Your task to perform on an android device: turn pop-ups on in chrome Image 0: 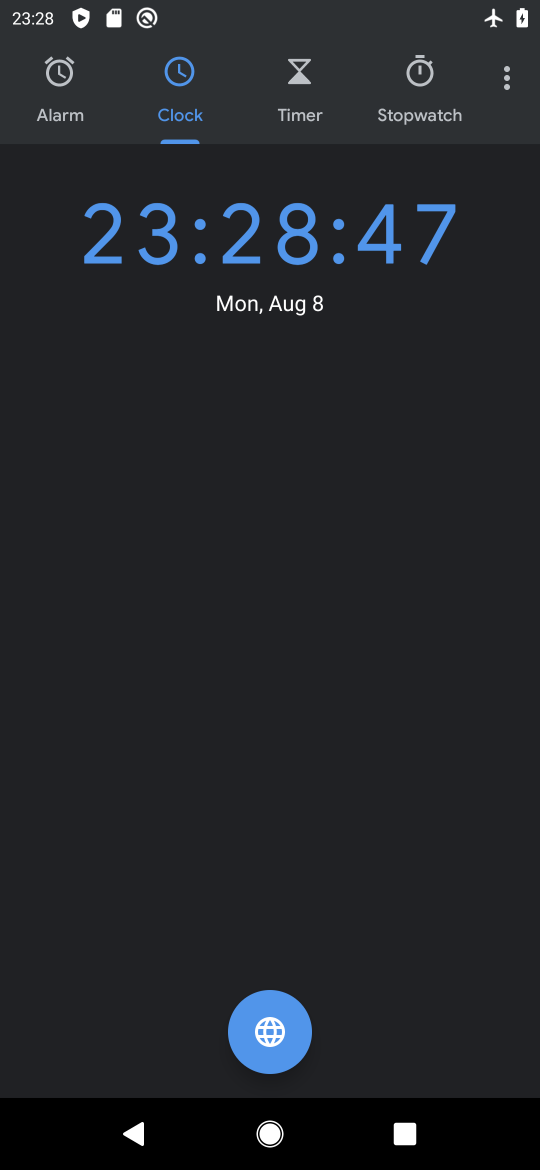
Step 0: press home button
Your task to perform on an android device: turn pop-ups on in chrome Image 1: 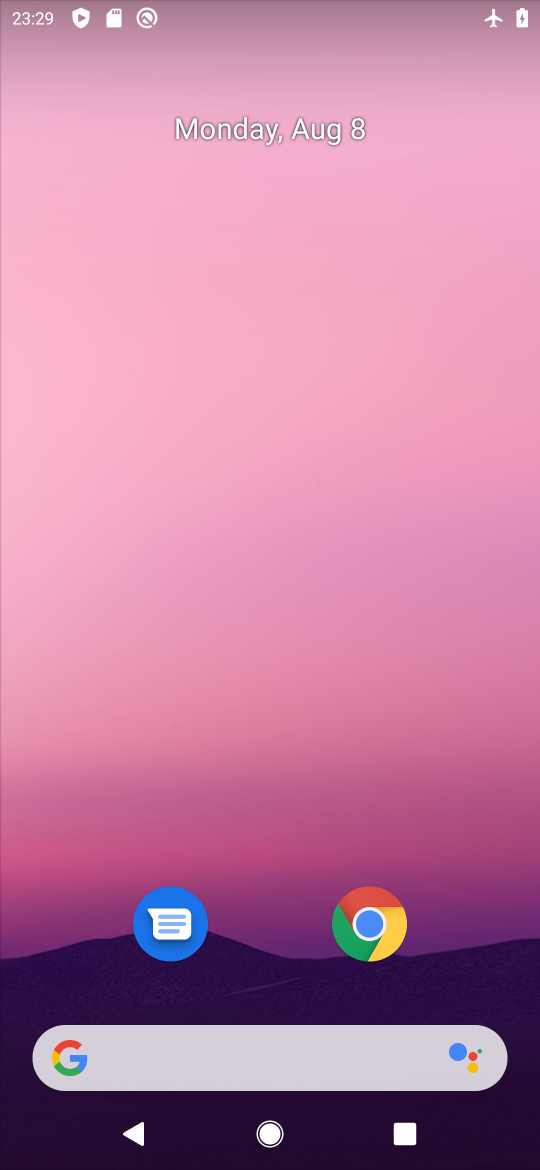
Step 1: click (379, 921)
Your task to perform on an android device: turn pop-ups on in chrome Image 2: 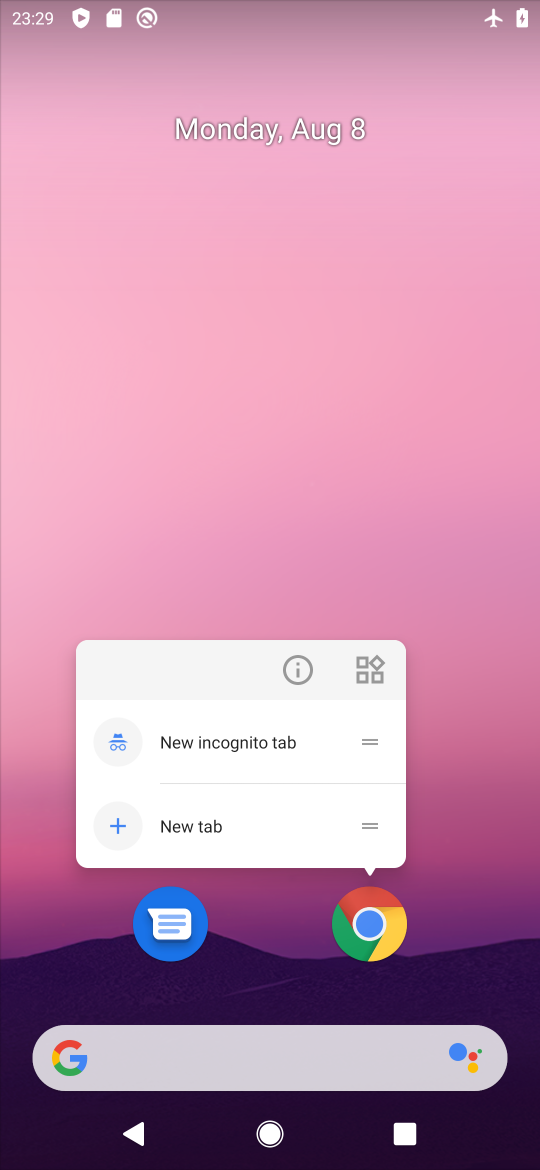
Step 2: click (379, 921)
Your task to perform on an android device: turn pop-ups on in chrome Image 3: 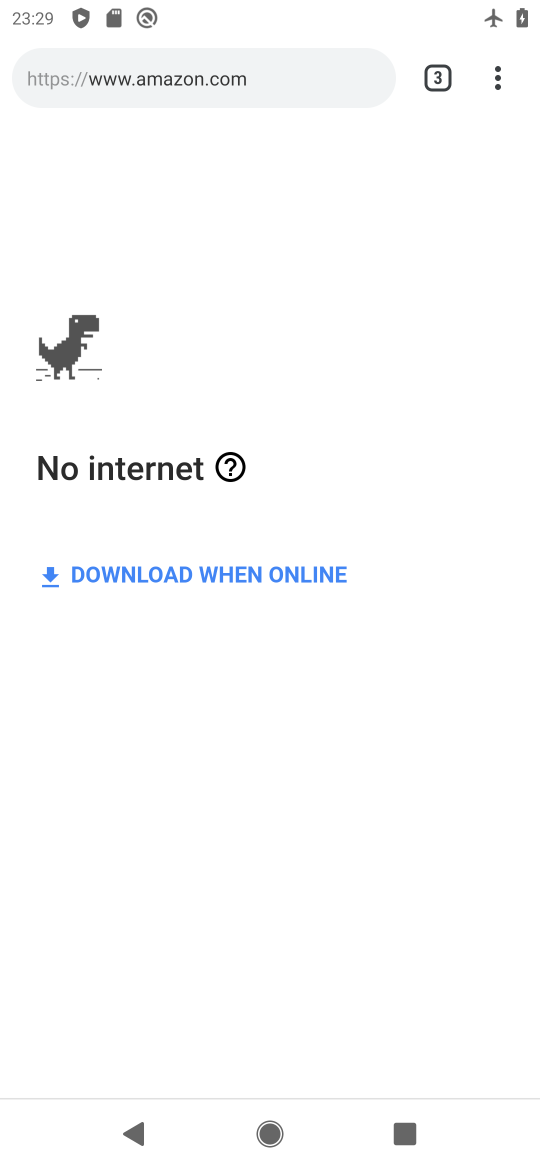
Step 3: click (504, 73)
Your task to perform on an android device: turn pop-ups on in chrome Image 4: 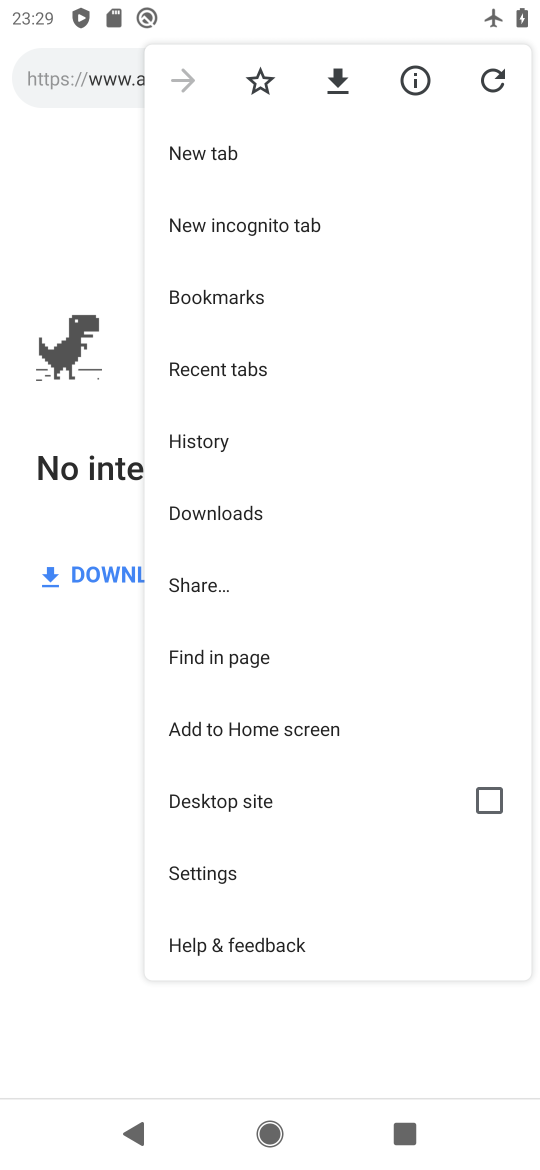
Step 4: click (228, 883)
Your task to perform on an android device: turn pop-ups on in chrome Image 5: 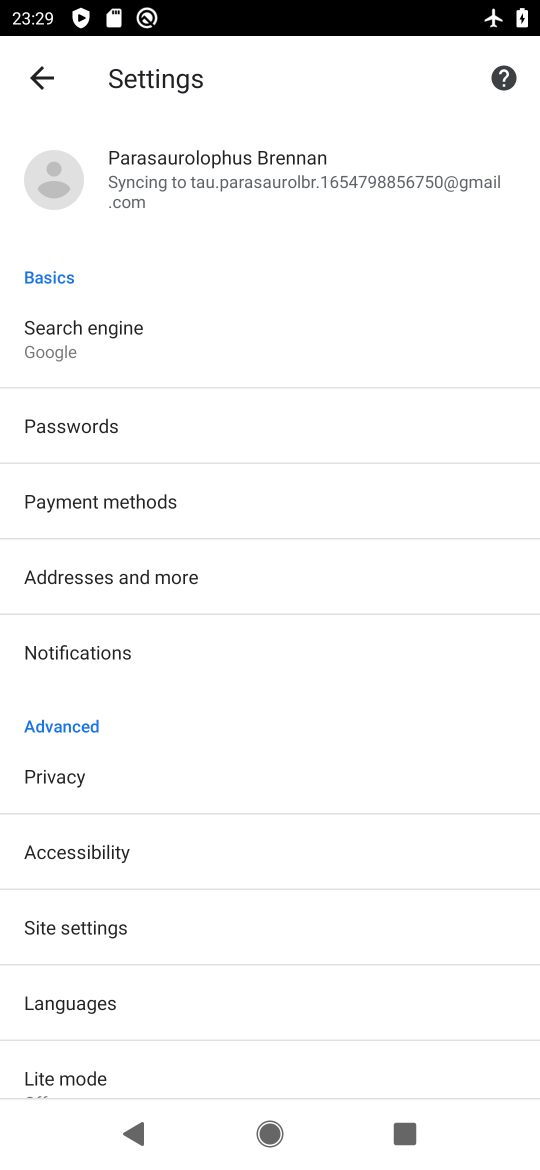
Step 5: click (108, 925)
Your task to perform on an android device: turn pop-ups on in chrome Image 6: 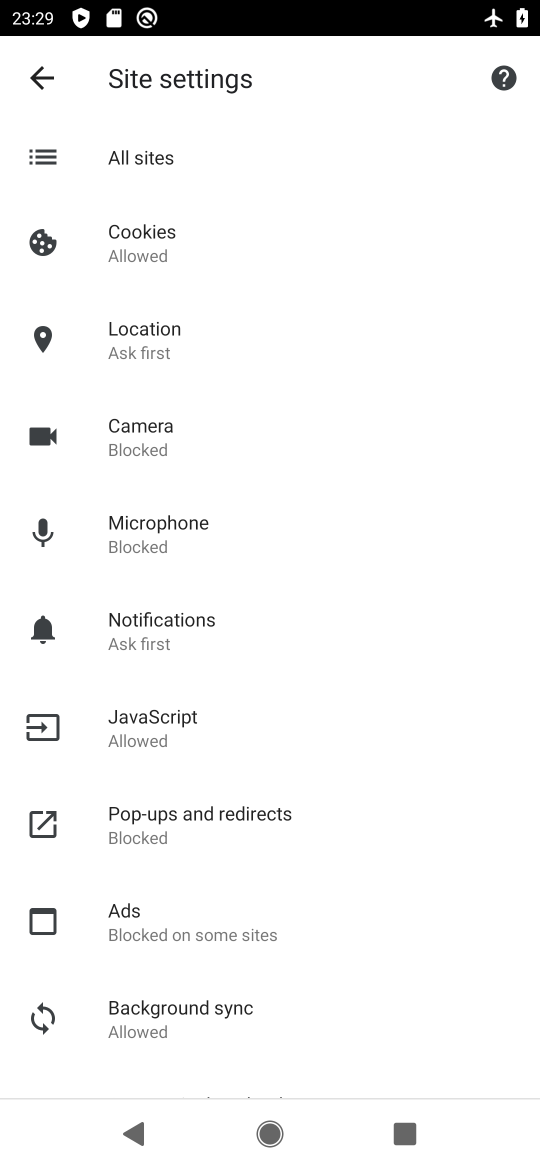
Step 6: click (123, 845)
Your task to perform on an android device: turn pop-ups on in chrome Image 7: 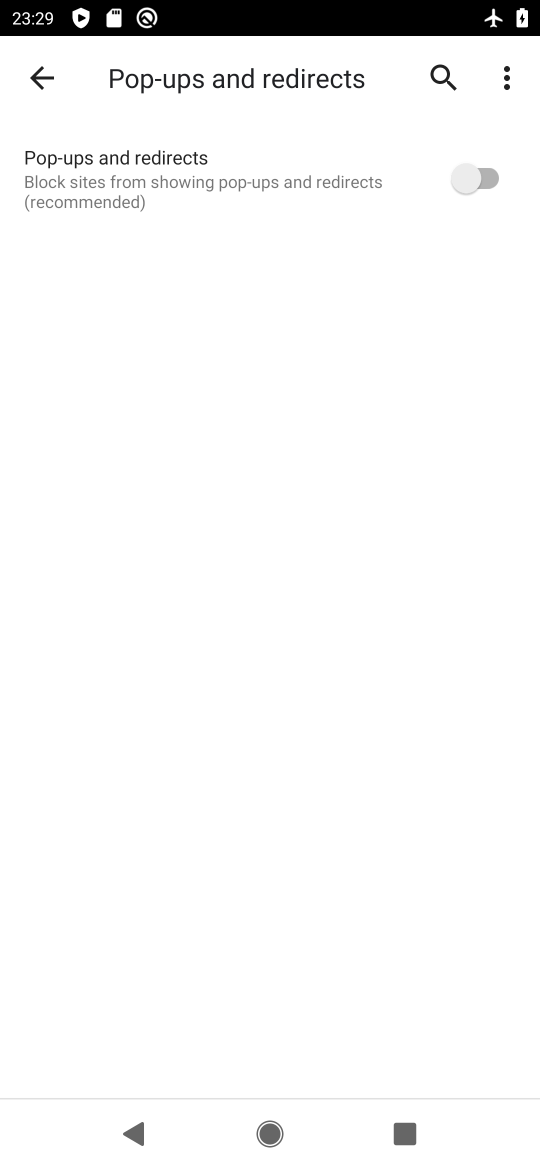
Step 7: click (460, 182)
Your task to perform on an android device: turn pop-ups on in chrome Image 8: 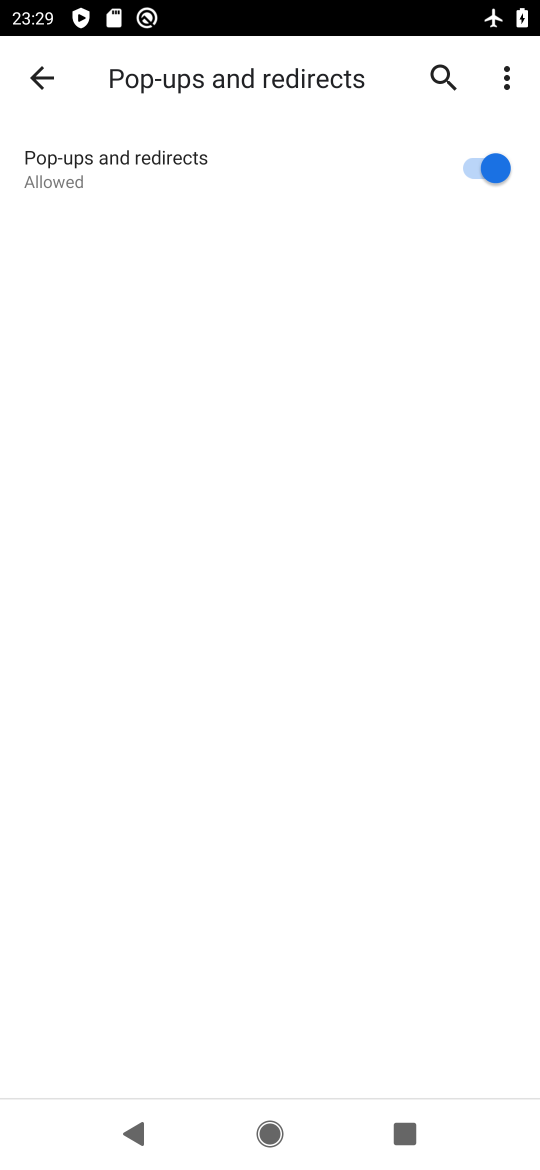
Step 8: task complete